Your task to perform on an android device: Open Google Maps and go to "Timeline" Image 0: 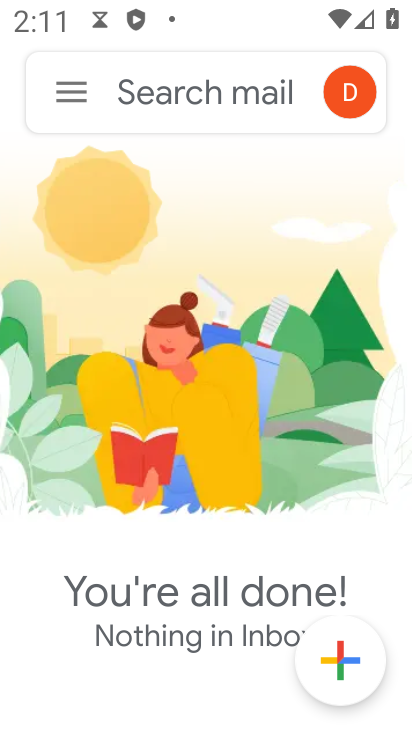
Step 0: press back button
Your task to perform on an android device: Open Google Maps and go to "Timeline" Image 1: 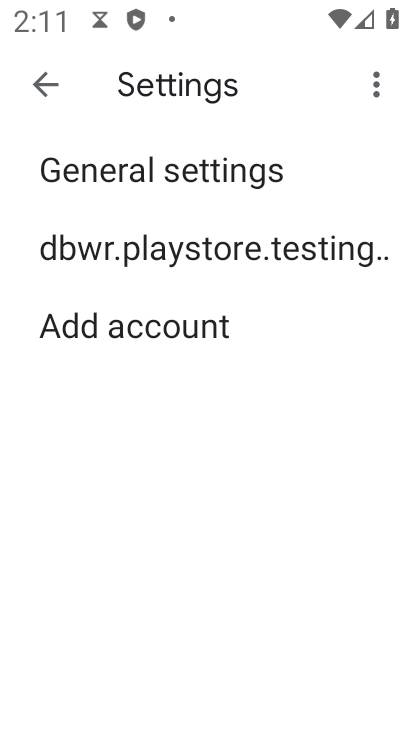
Step 1: press back button
Your task to perform on an android device: Open Google Maps and go to "Timeline" Image 2: 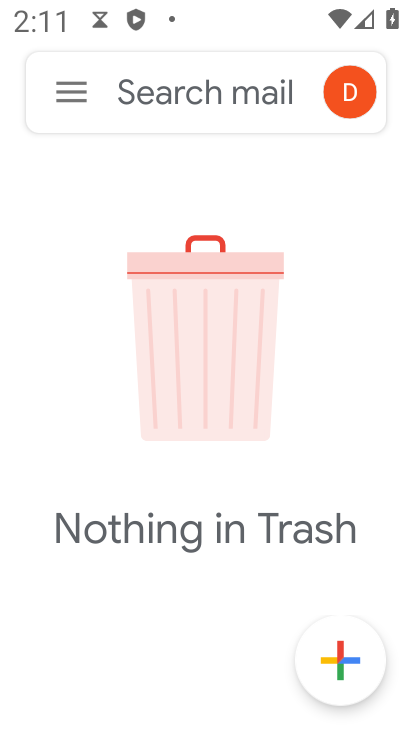
Step 2: press home button
Your task to perform on an android device: Open Google Maps and go to "Timeline" Image 3: 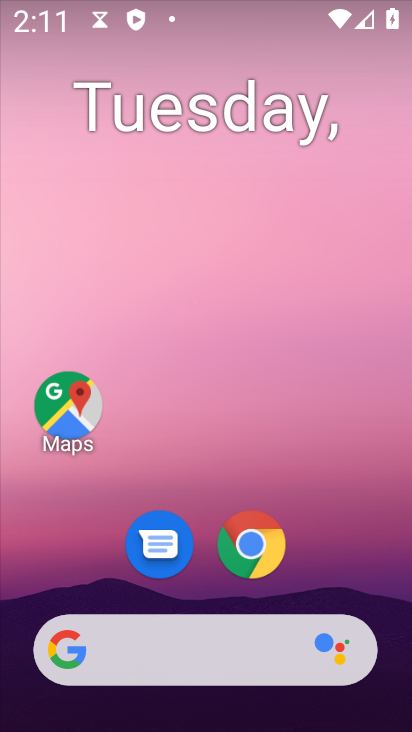
Step 3: drag from (345, 572) to (314, 95)
Your task to perform on an android device: Open Google Maps and go to "Timeline" Image 4: 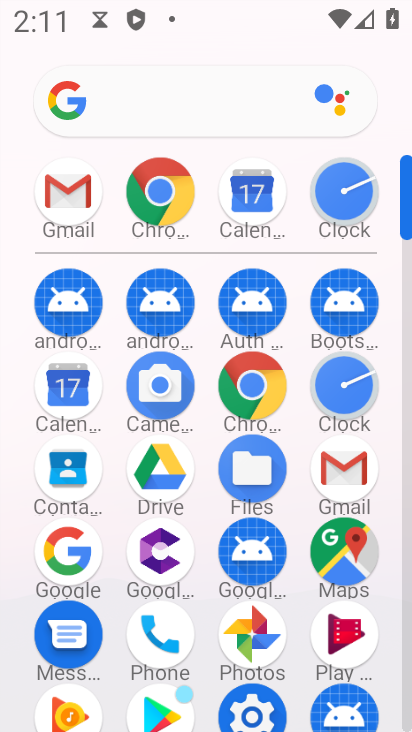
Step 4: drag from (16, 547) to (5, 235)
Your task to perform on an android device: Open Google Maps and go to "Timeline" Image 5: 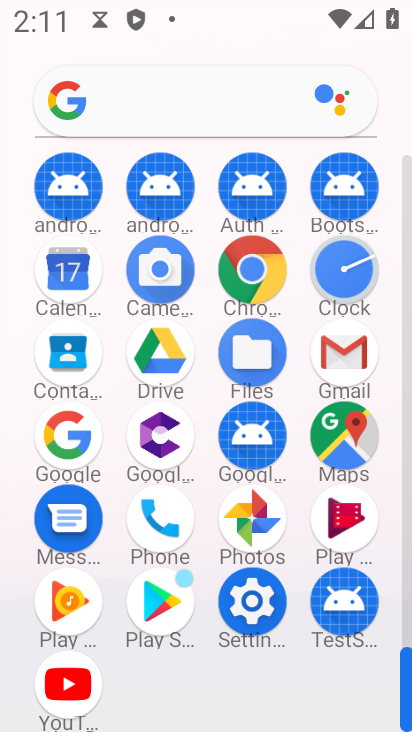
Step 5: click (344, 433)
Your task to perform on an android device: Open Google Maps and go to "Timeline" Image 6: 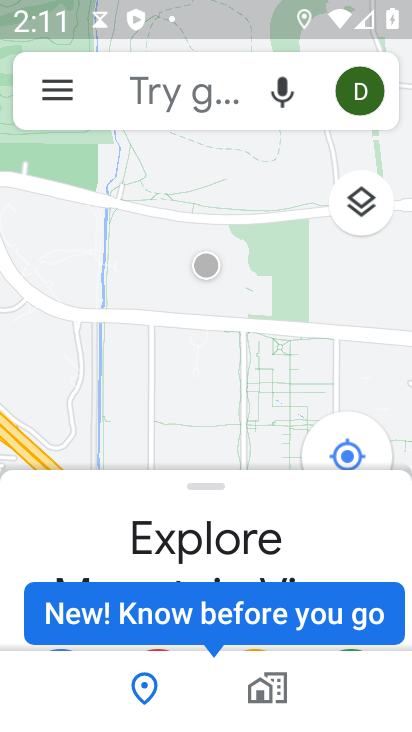
Step 6: click (50, 83)
Your task to perform on an android device: Open Google Maps and go to "Timeline" Image 7: 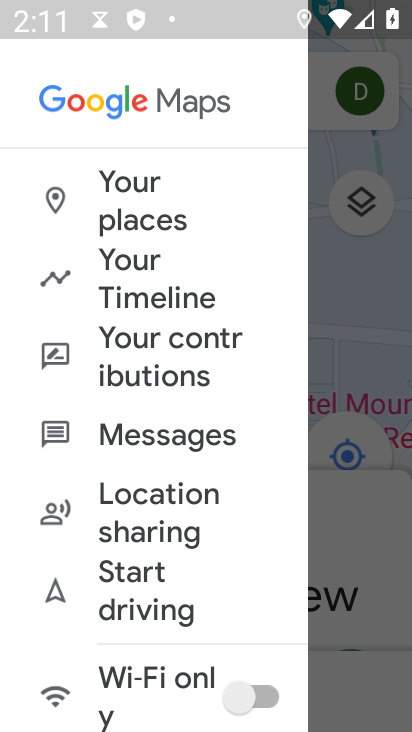
Step 7: click (160, 282)
Your task to perform on an android device: Open Google Maps and go to "Timeline" Image 8: 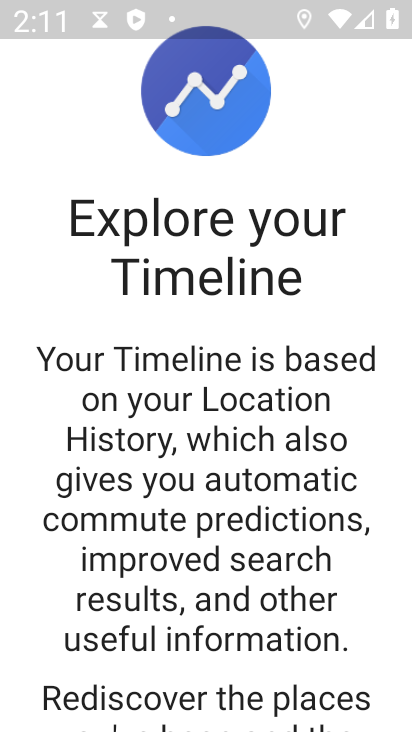
Step 8: drag from (233, 603) to (259, 155)
Your task to perform on an android device: Open Google Maps and go to "Timeline" Image 9: 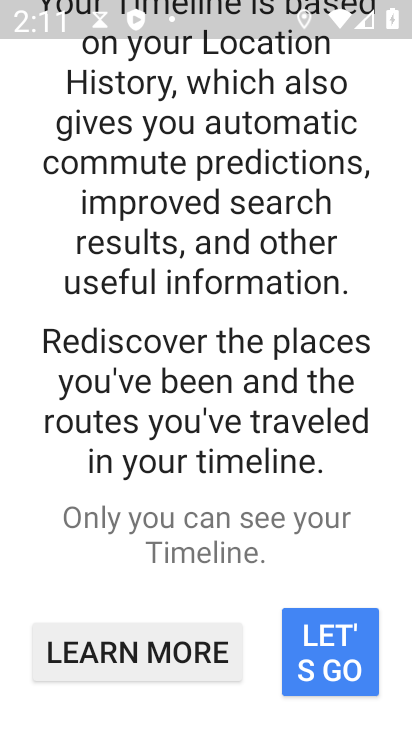
Step 9: click (323, 661)
Your task to perform on an android device: Open Google Maps and go to "Timeline" Image 10: 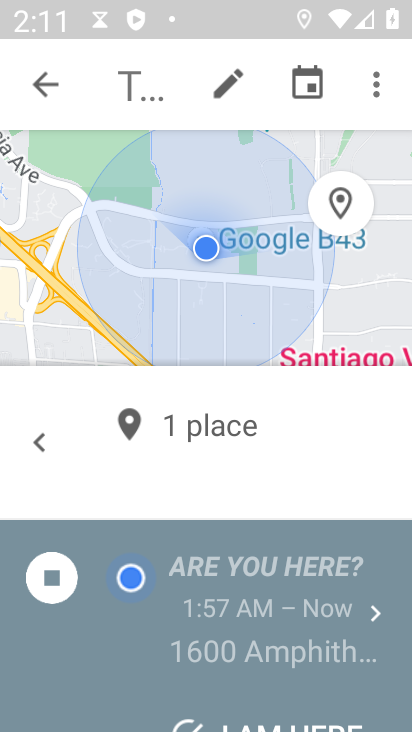
Step 10: task complete